Your task to perform on an android device: turn on improve location accuracy Image 0: 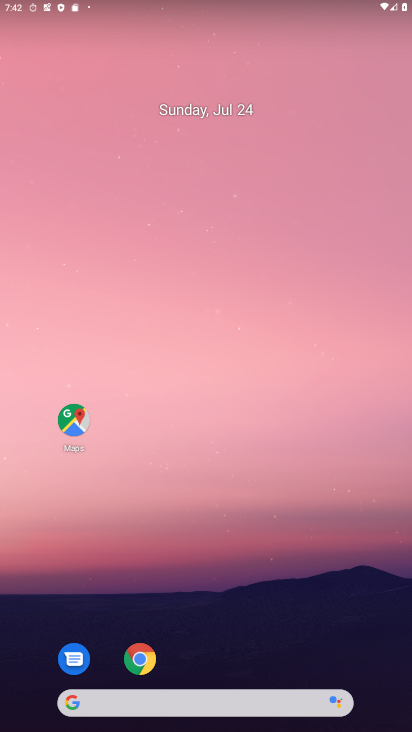
Step 0: drag from (257, 556) to (198, 0)
Your task to perform on an android device: turn on improve location accuracy Image 1: 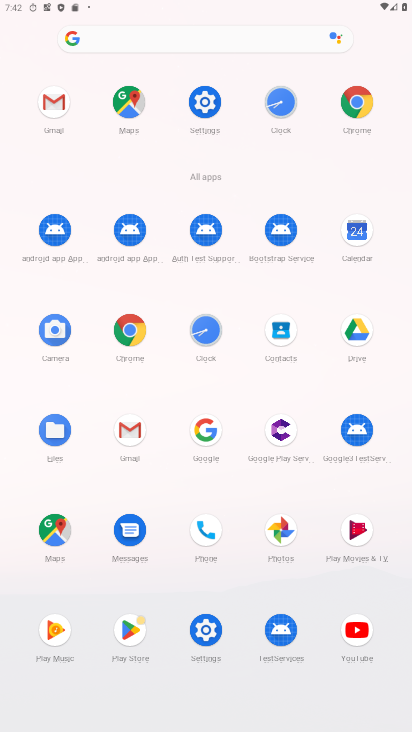
Step 1: click (200, 96)
Your task to perform on an android device: turn on improve location accuracy Image 2: 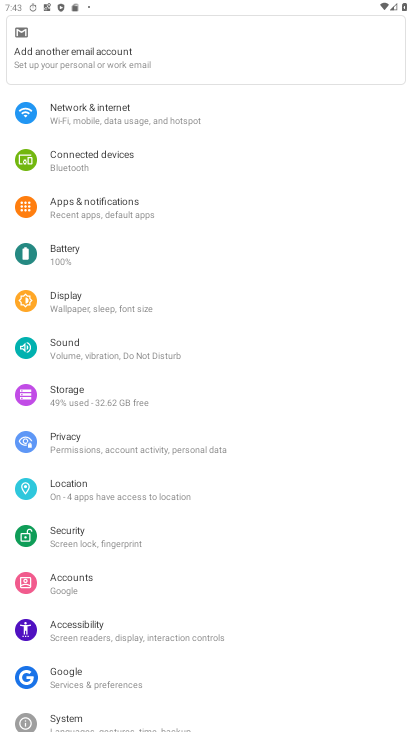
Step 2: drag from (107, 604) to (101, 253)
Your task to perform on an android device: turn on improve location accuracy Image 3: 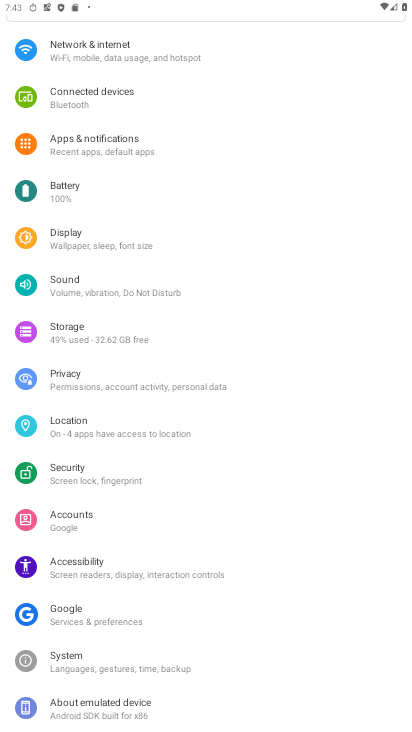
Step 3: click (68, 439)
Your task to perform on an android device: turn on improve location accuracy Image 4: 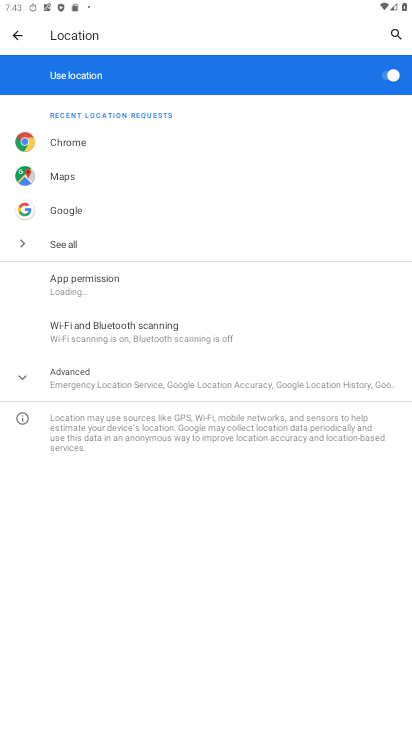
Step 4: click (65, 381)
Your task to perform on an android device: turn on improve location accuracy Image 5: 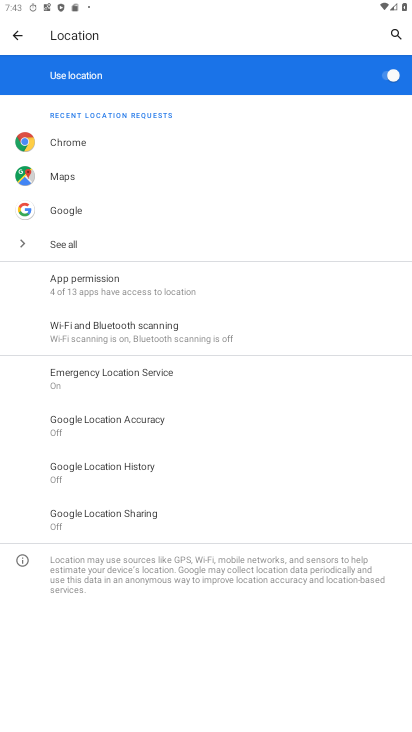
Step 5: click (78, 425)
Your task to perform on an android device: turn on improve location accuracy Image 6: 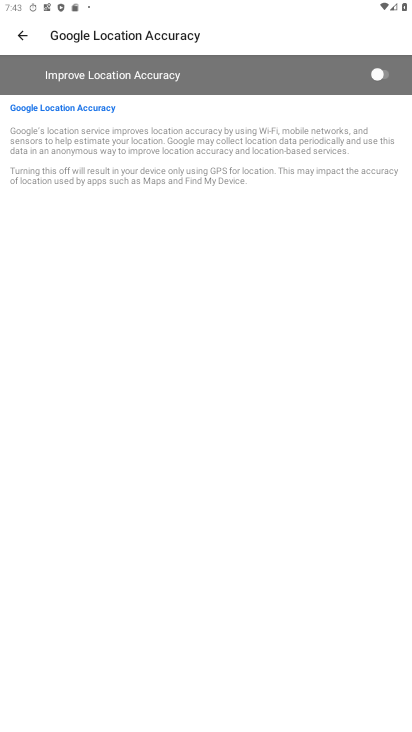
Step 6: click (380, 74)
Your task to perform on an android device: turn on improve location accuracy Image 7: 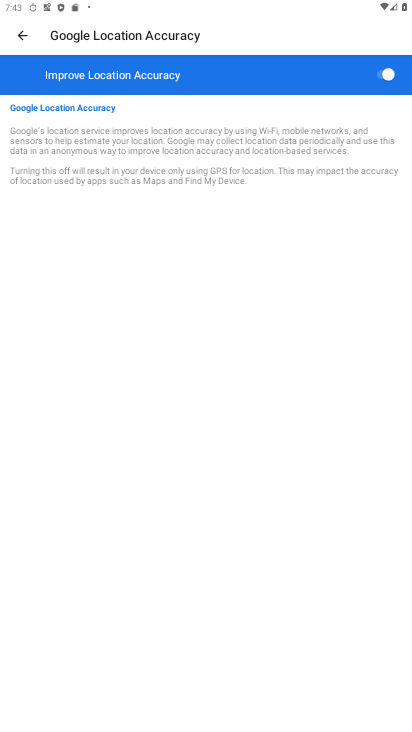
Step 7: task complete